Your task to perform on an android device: Go to CNN.com Image 0: 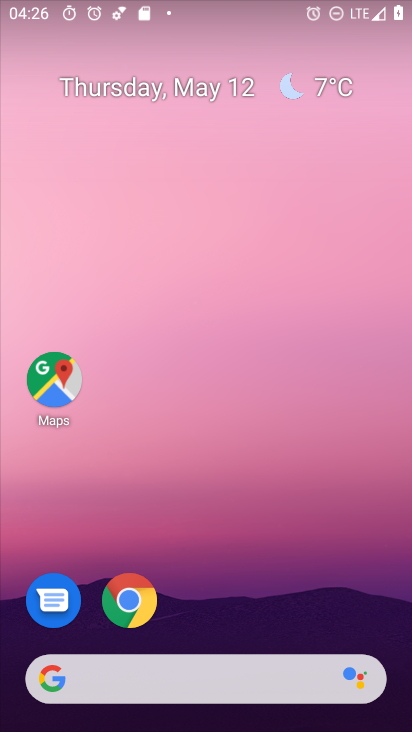
Step 0: click (128, 604)
Your task to perform on an android device: Go to CNN.com Image 1: 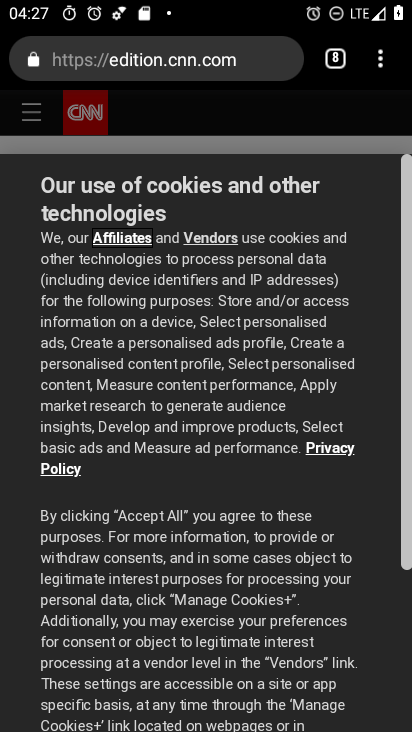
Step 1: task complete